Your task to perform on an android device: Go to settings Image 0: 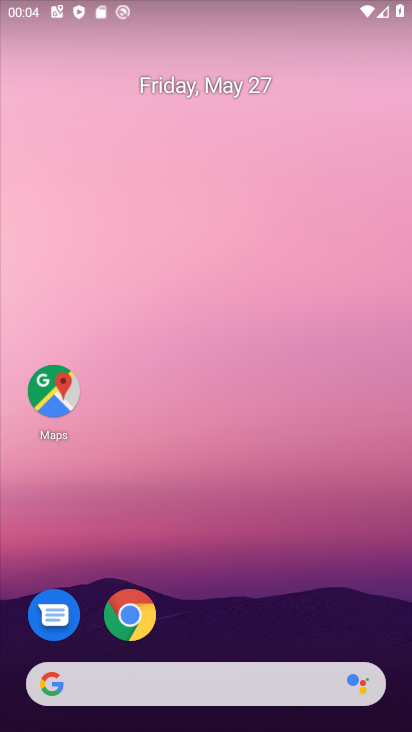
Step 0: drag from (247, 600) to (244, 82)
Your task to perform on an android device: Go to settings Image 1: 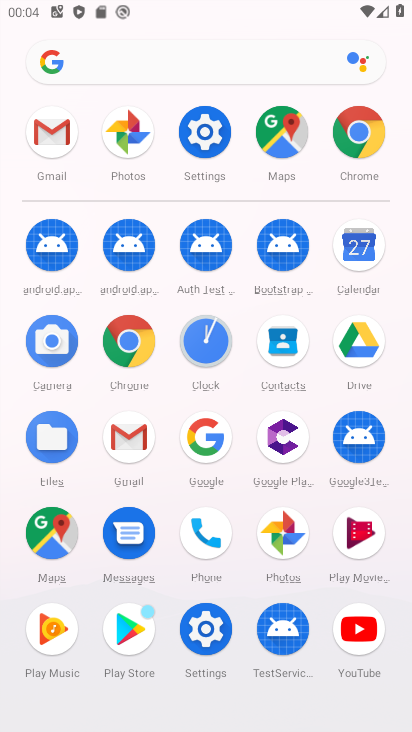
Step 1: click (206, 134)
Your task to perform on an android device: Go to settings Image 2: 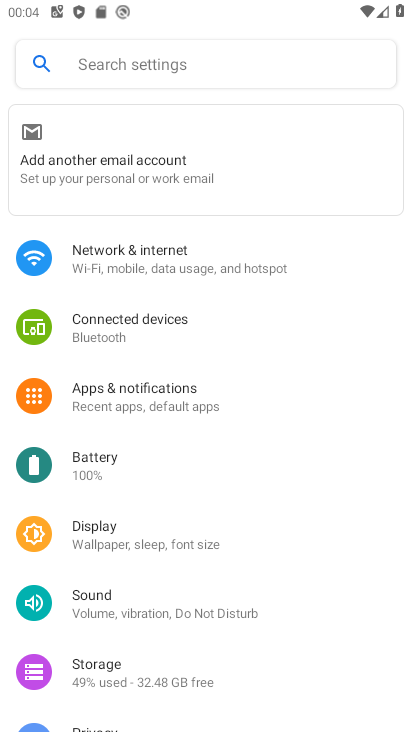
Step 2: task complete